Your task to perform on an android device: open sync settings in chrome Image 0: 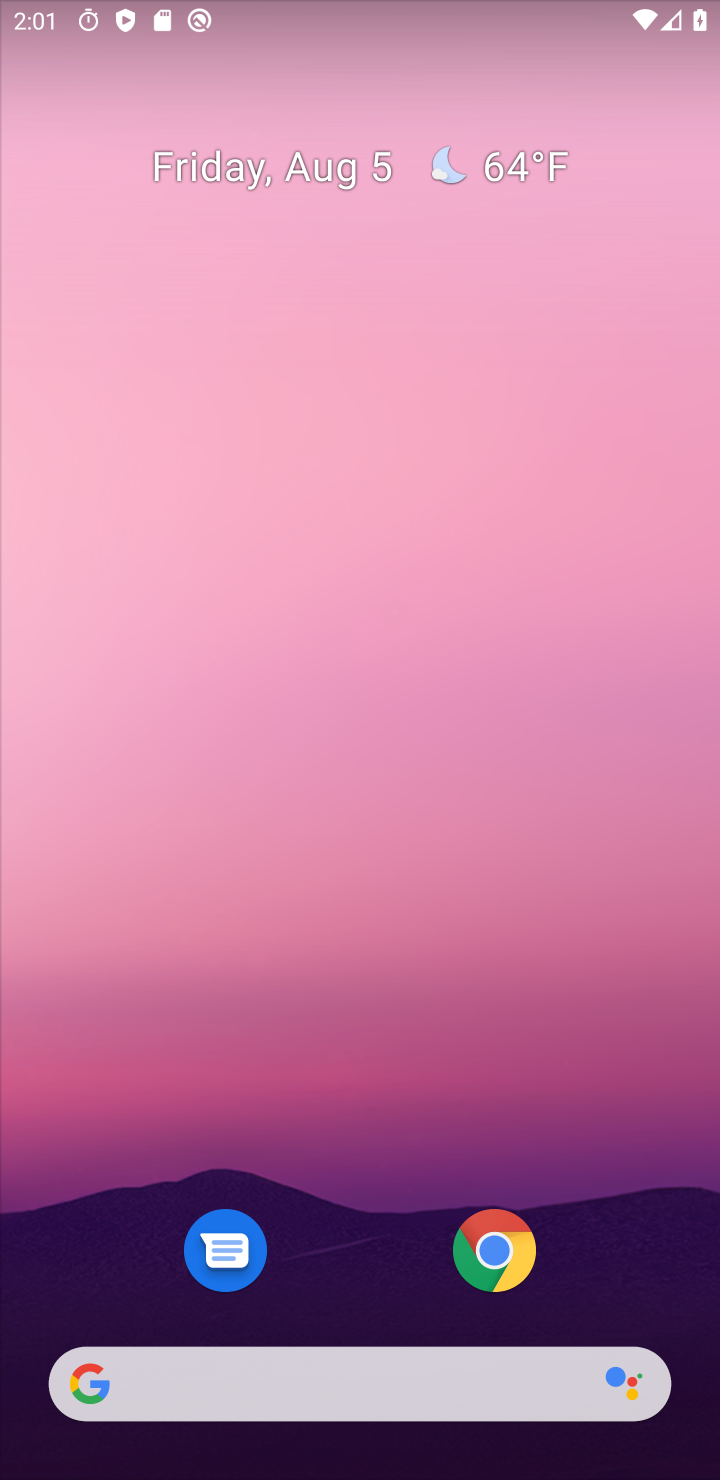
Step 0: drag from (327, 1016) to (412, 173)
Your task to perform on an android device: open sync settings in chrome Image 1: 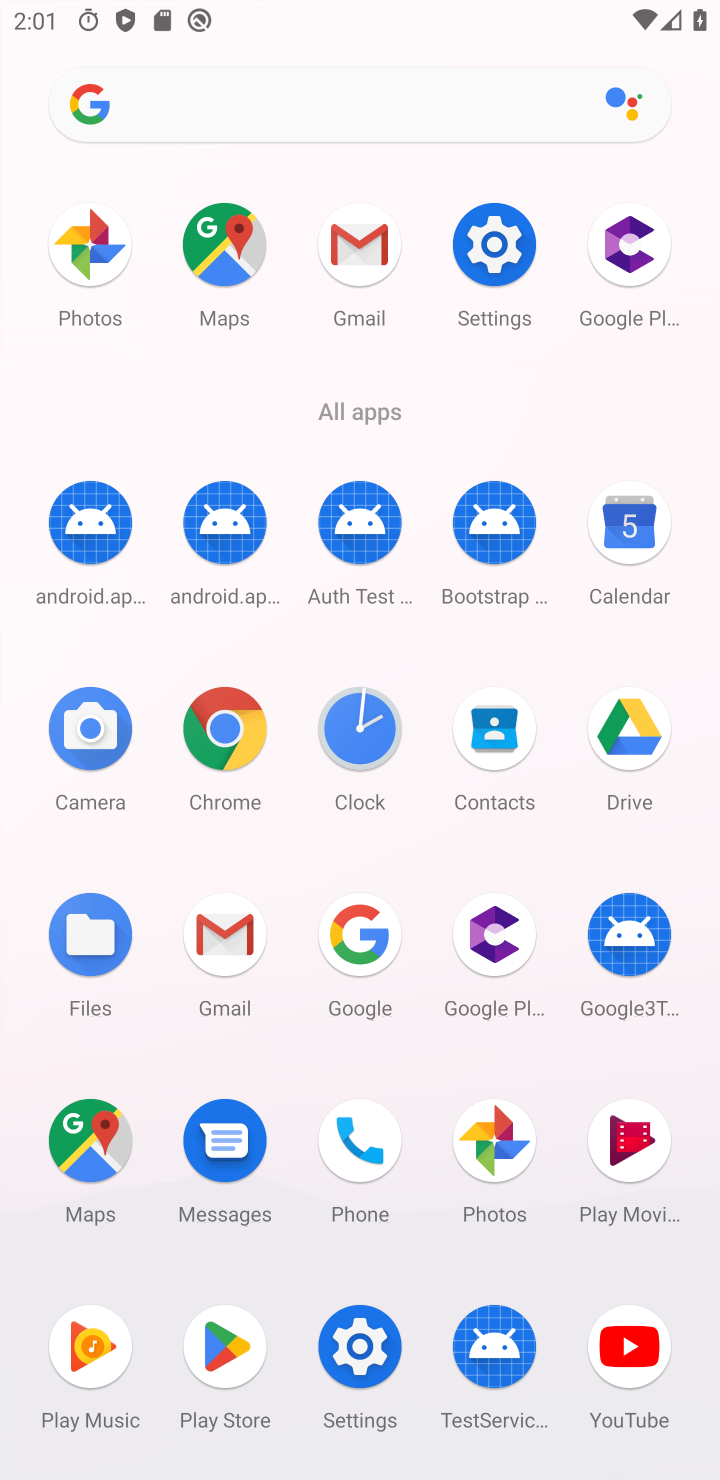
Step 1: click (228, 724)
Your task to perform on an android device: open sync settings in chrome Image 2: 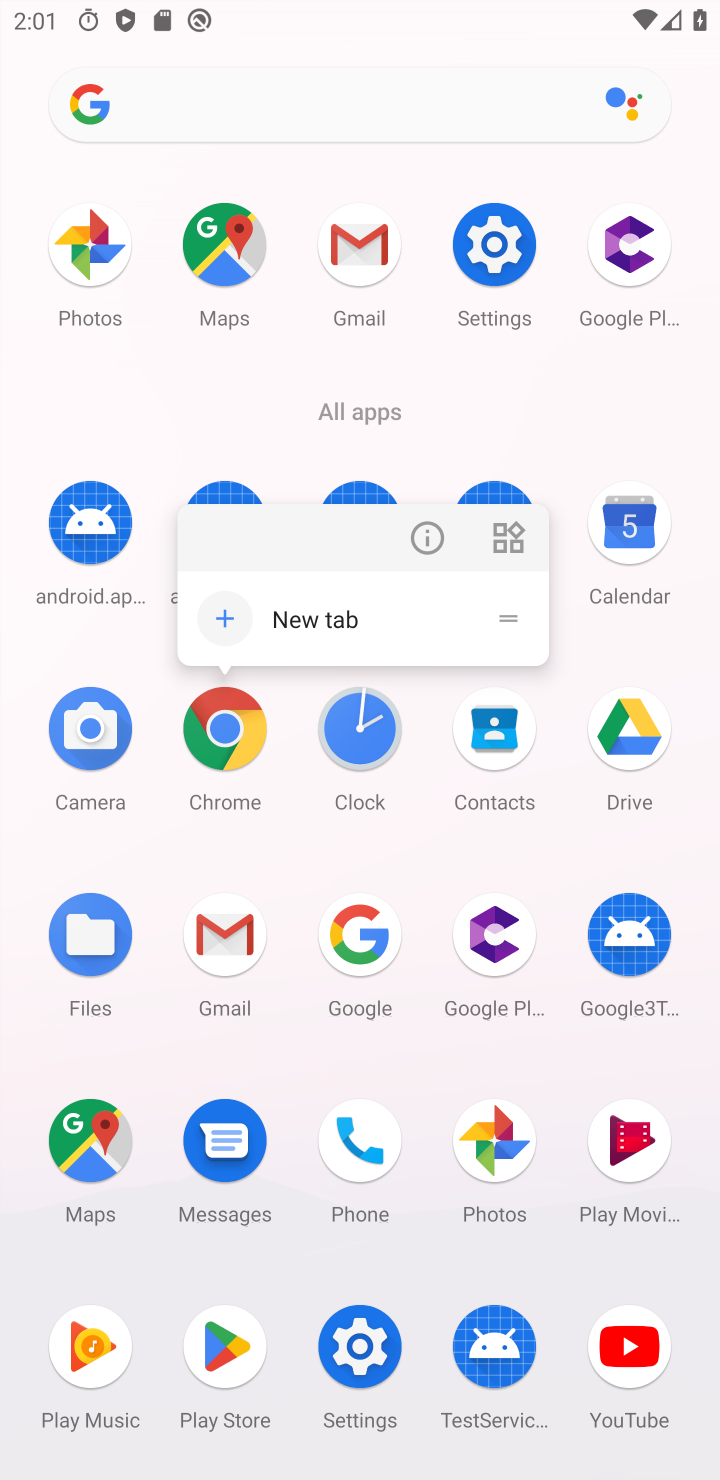
Step 2: click (419, 554)
Your task to perform on an android device: open sync settings in chrome Image 3: 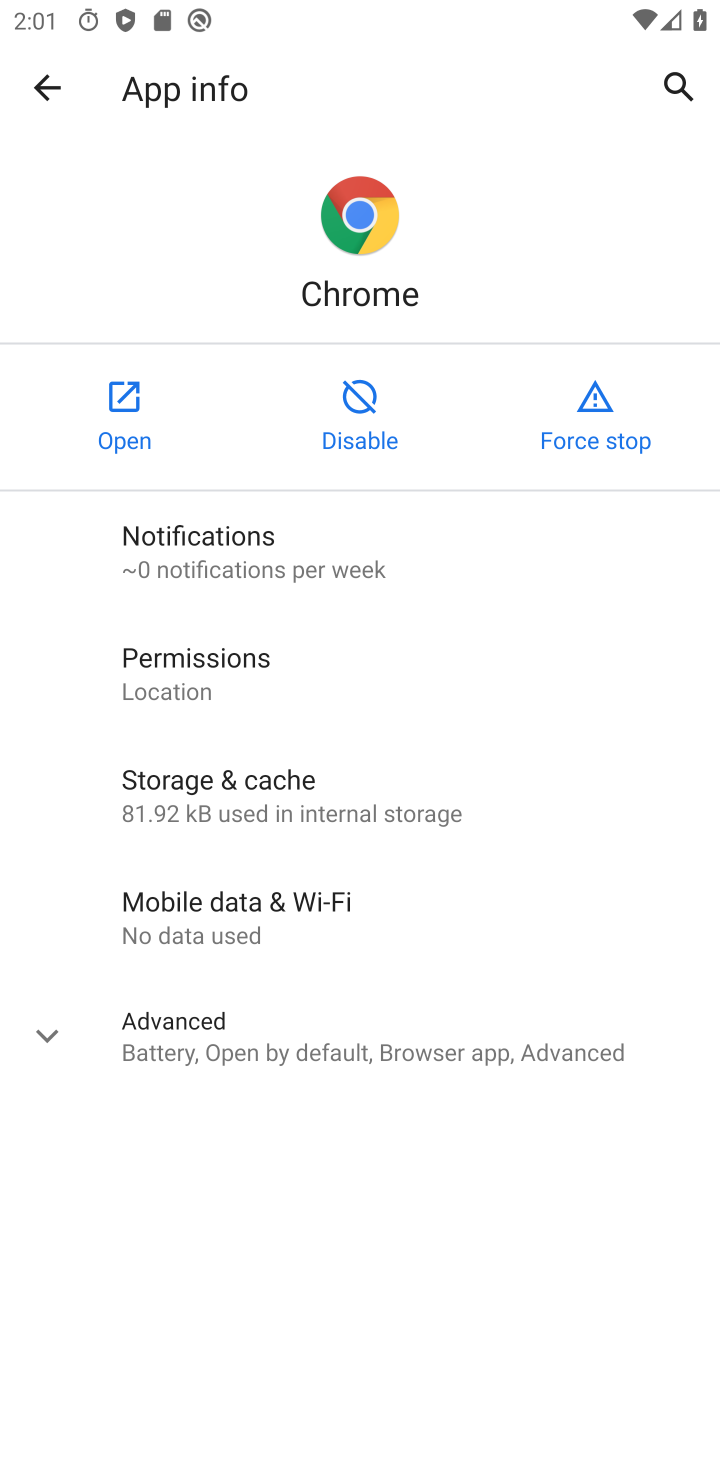
Step 3: click (134, 435)
Your task to perform on an android device: open sync settings in chrome Image 4: 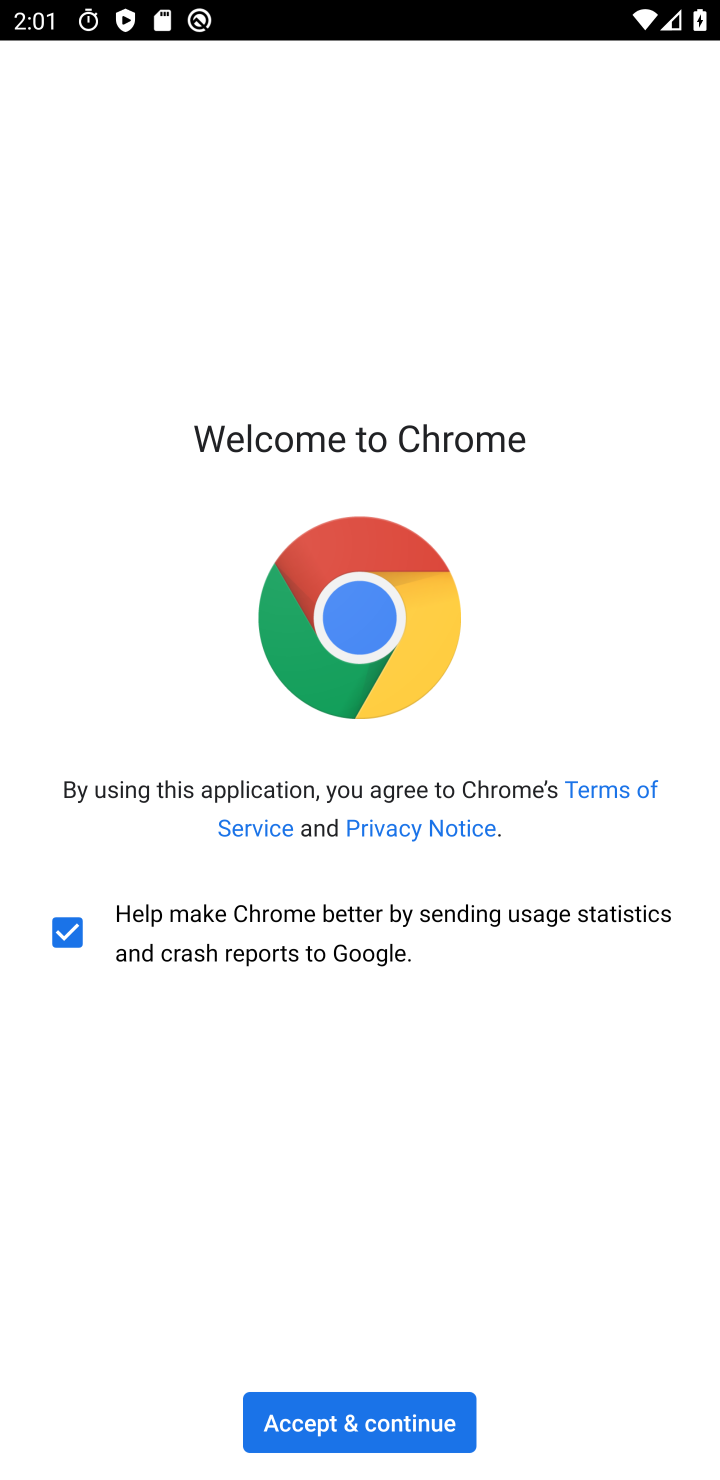
Step 4: click (320, 1403)
Your task to perform on an android device: open sync settings in chrome Image 5: 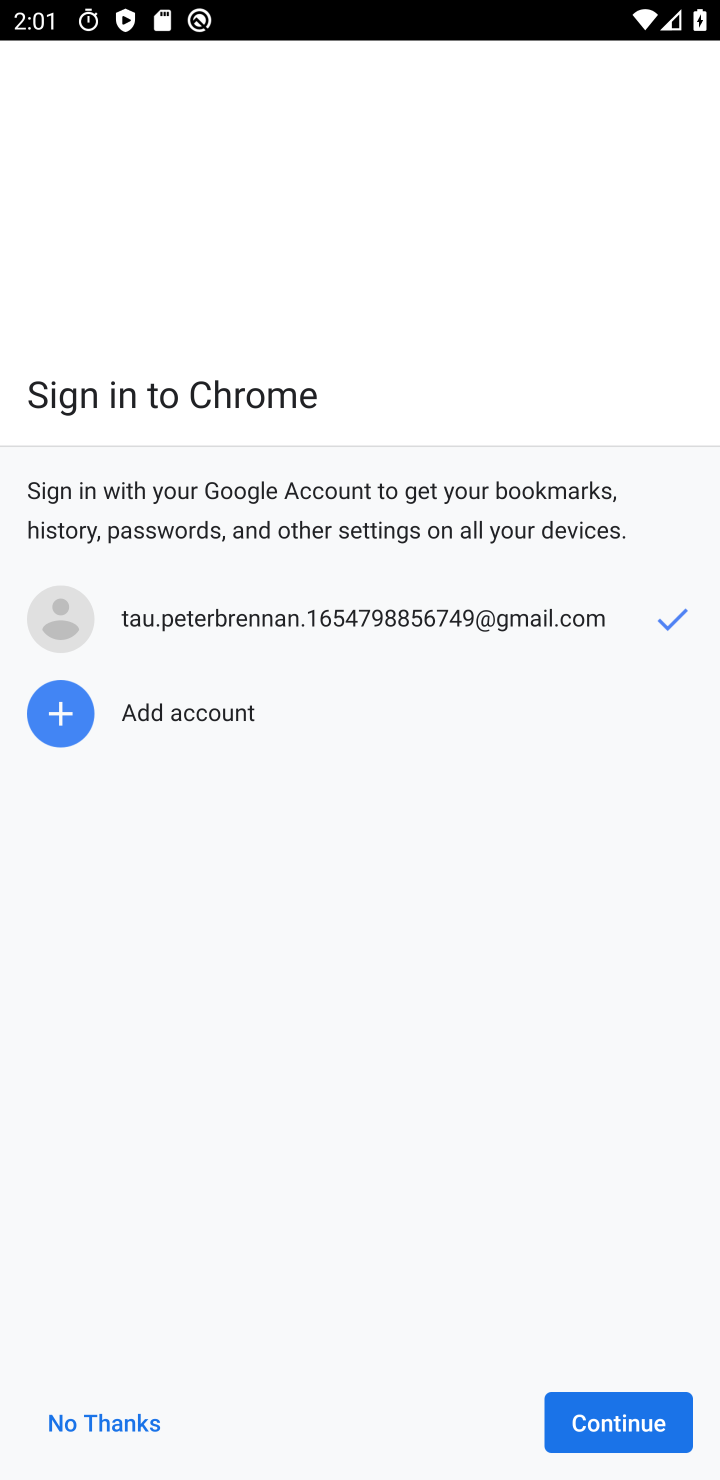
Step 5: click (587, 1413)
Your task to perform on an android device: open sync settings in chrome Image 6: 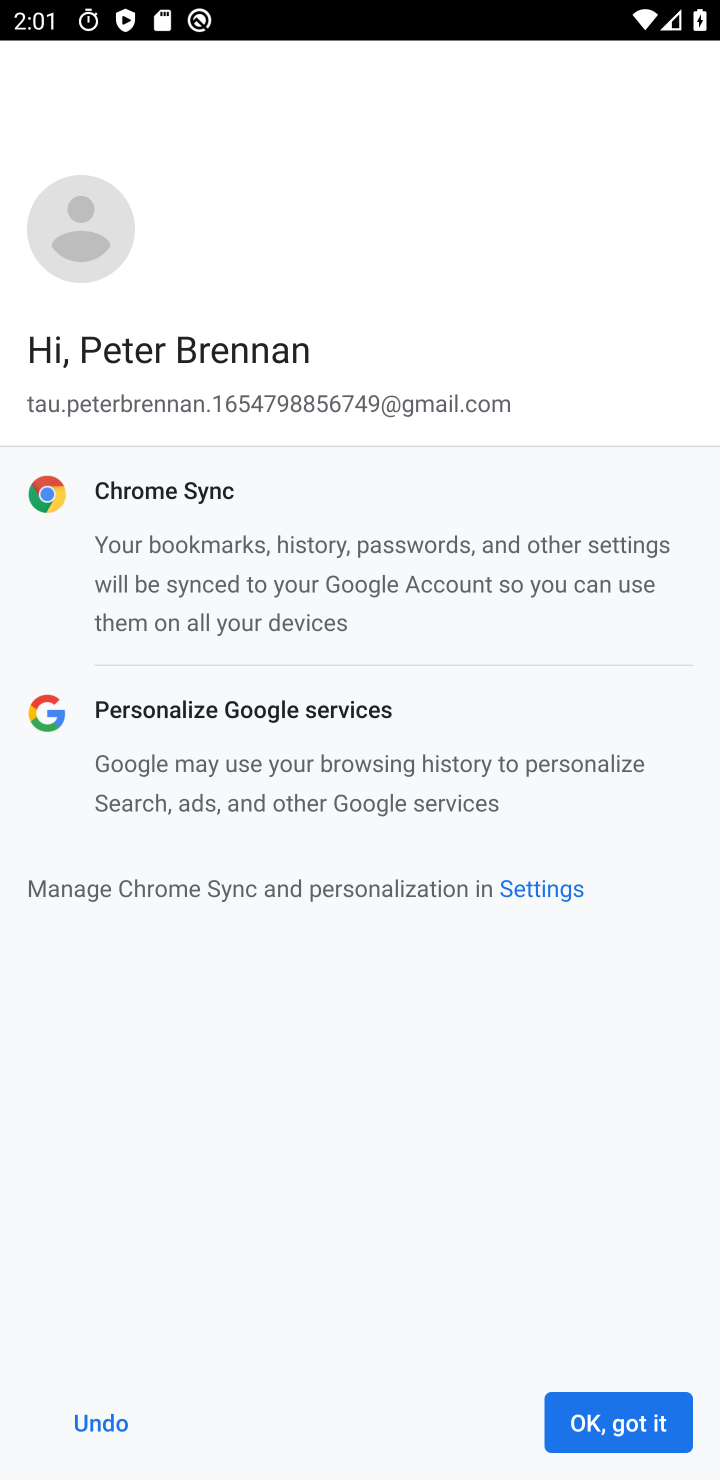
Step 6: click (581, 1411)
Your task to perform on an android device: open sync settings in chrome Image 7: 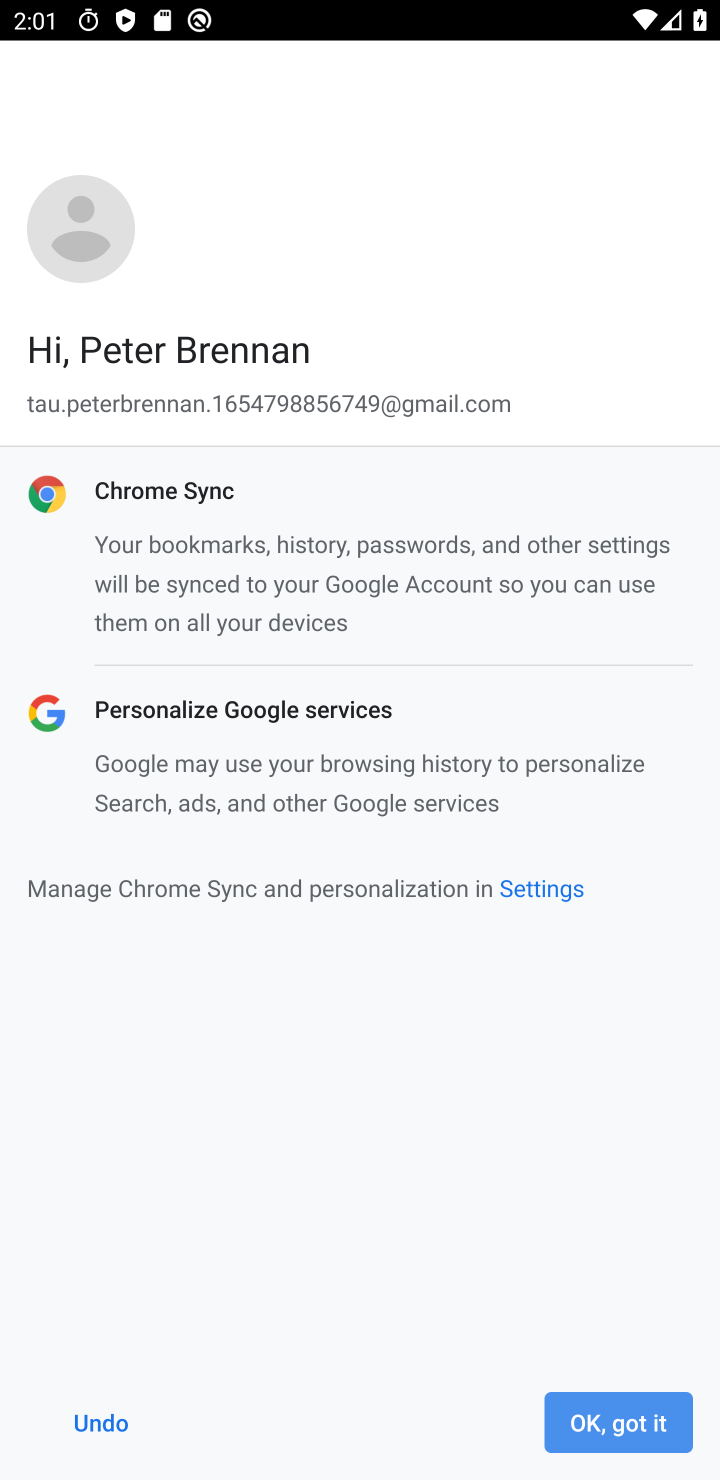
Step 7: click (578, 1407)
Your task to perform on an android device: open sync settings in chrome Image 8: 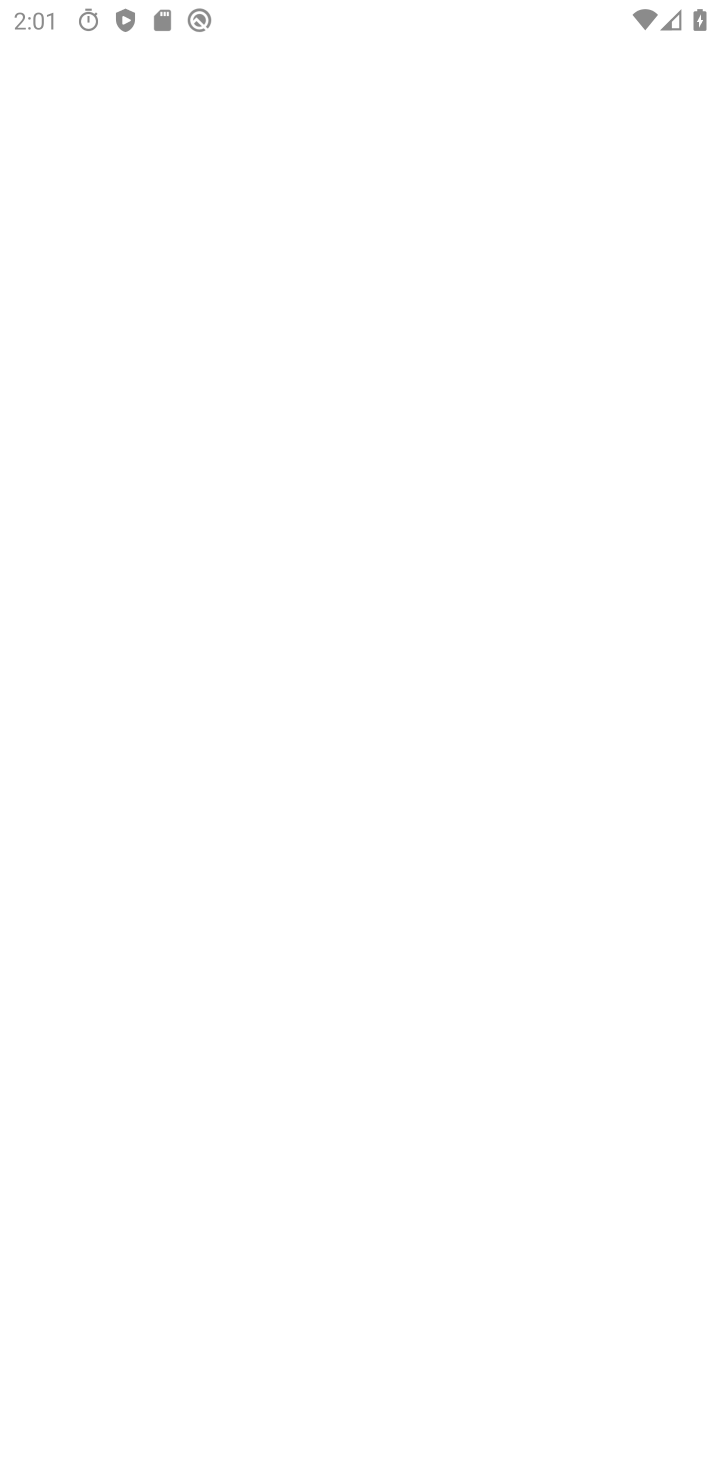
Step 8: drag from (279, 1086) to (245, 278)
Your task to perform on an android device: open sync settings in chrome Image 9: 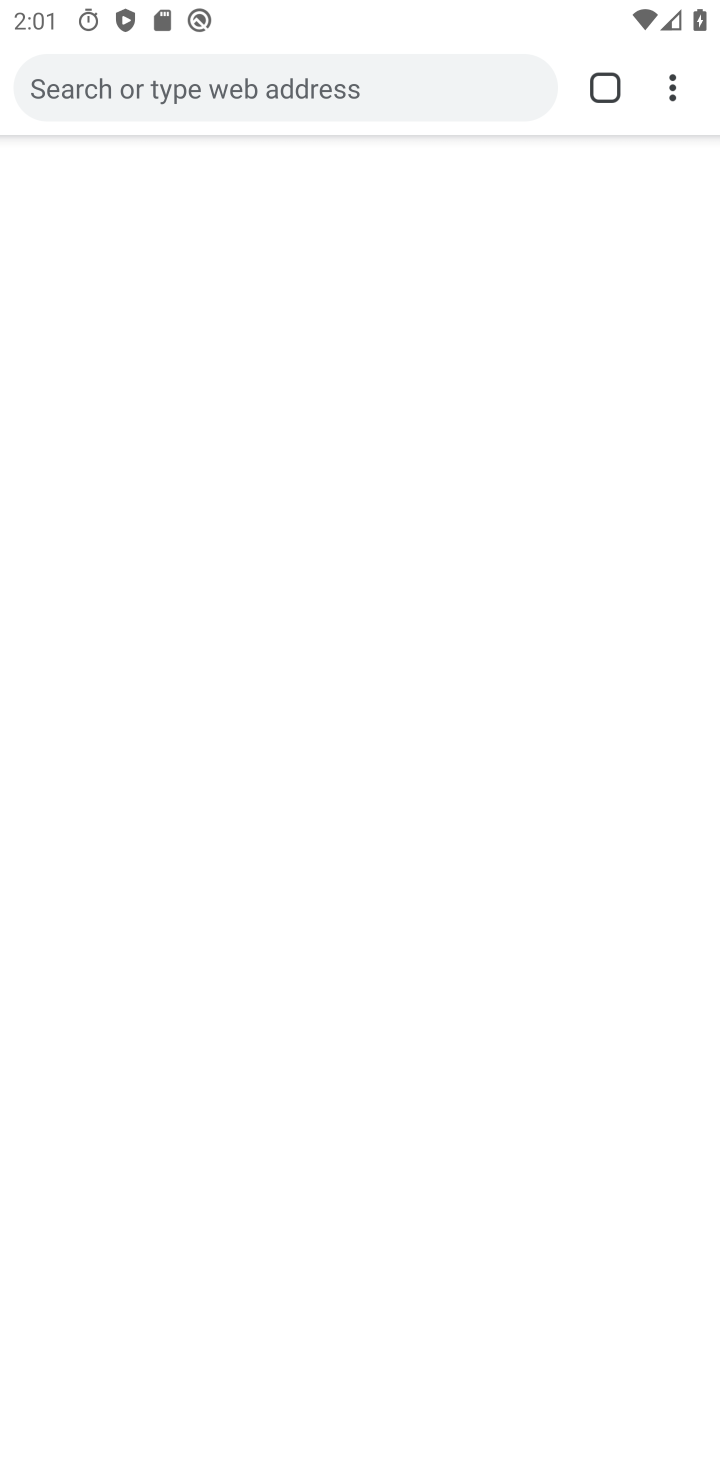
Step 9: drag from (277, 667) to (277, 337)
Your task to perform on an android device: open sync settings in chrome Image 10: 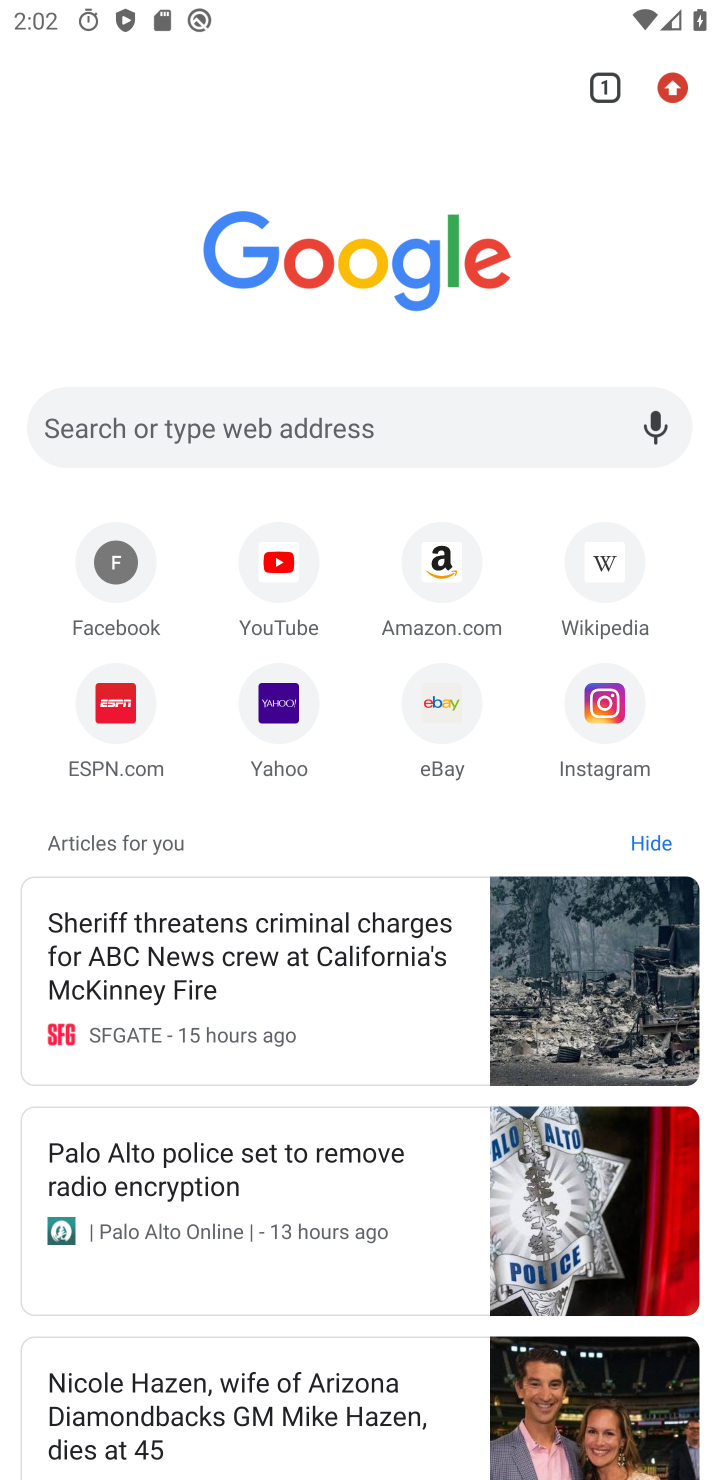
Step 10: drag from (660, 81) to (407, 834)
Your task to perform on an android device: open sync settings in chrome Image 11: 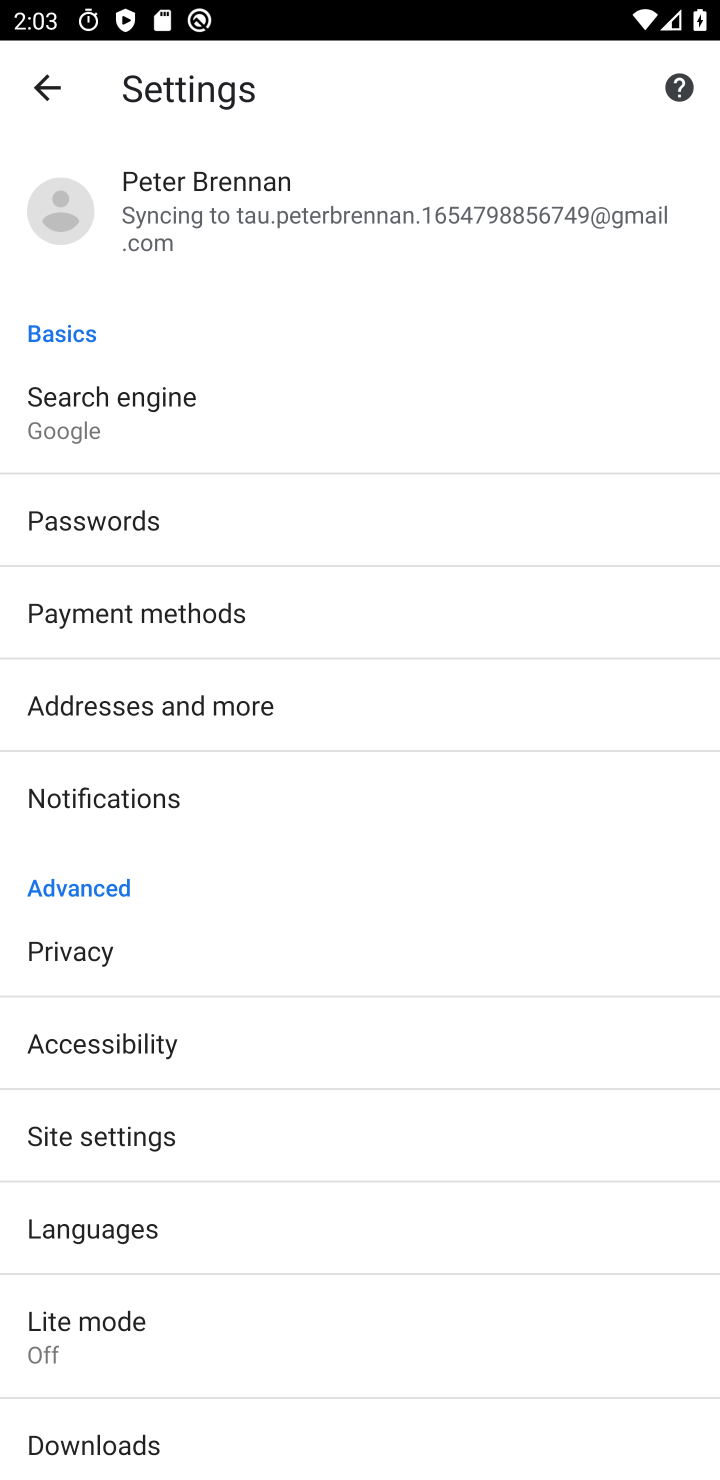
Step 11: drag from (290, 1332) to (424, 623)
Your task to perform on an android device: open sync settings in chrome Image 12: 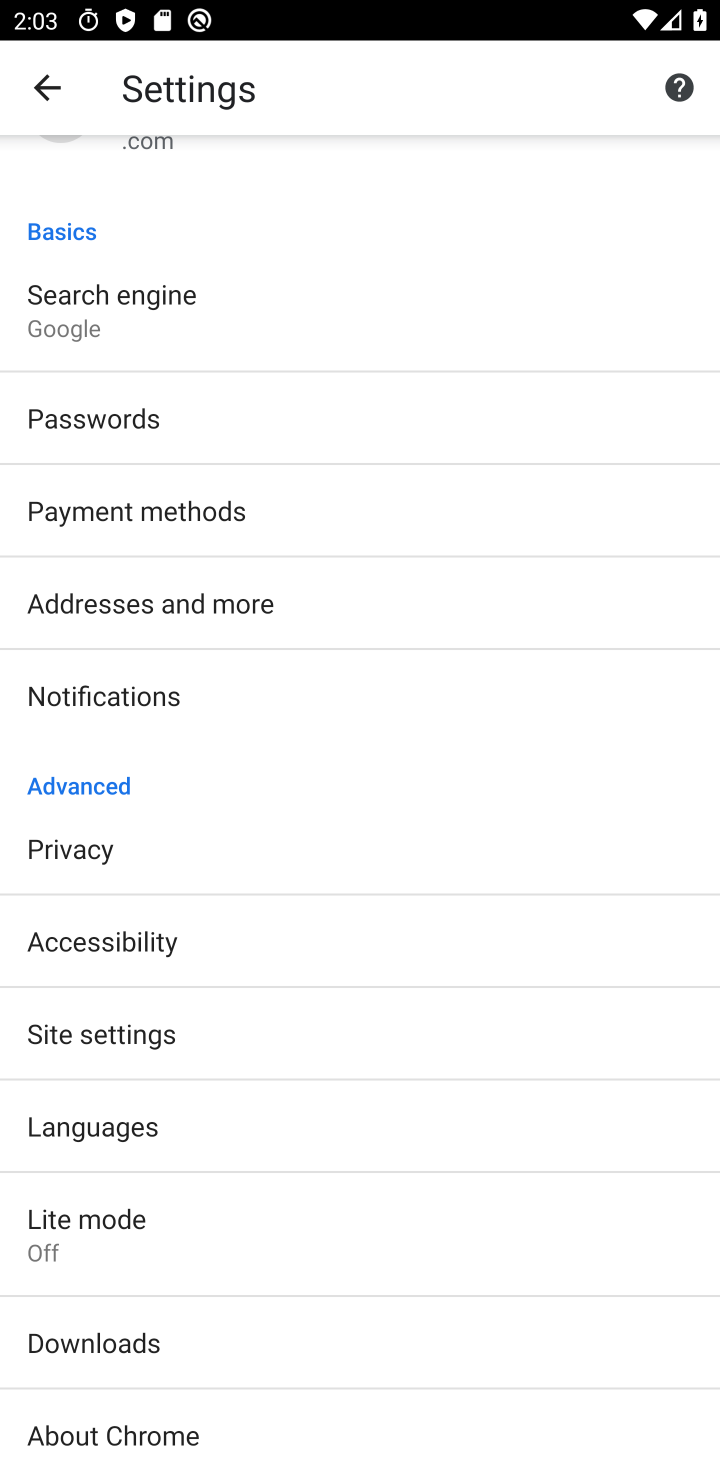
Step 12: click (180, 844)
Your task to perform on an android device: open sync settings in chrome Image 13: 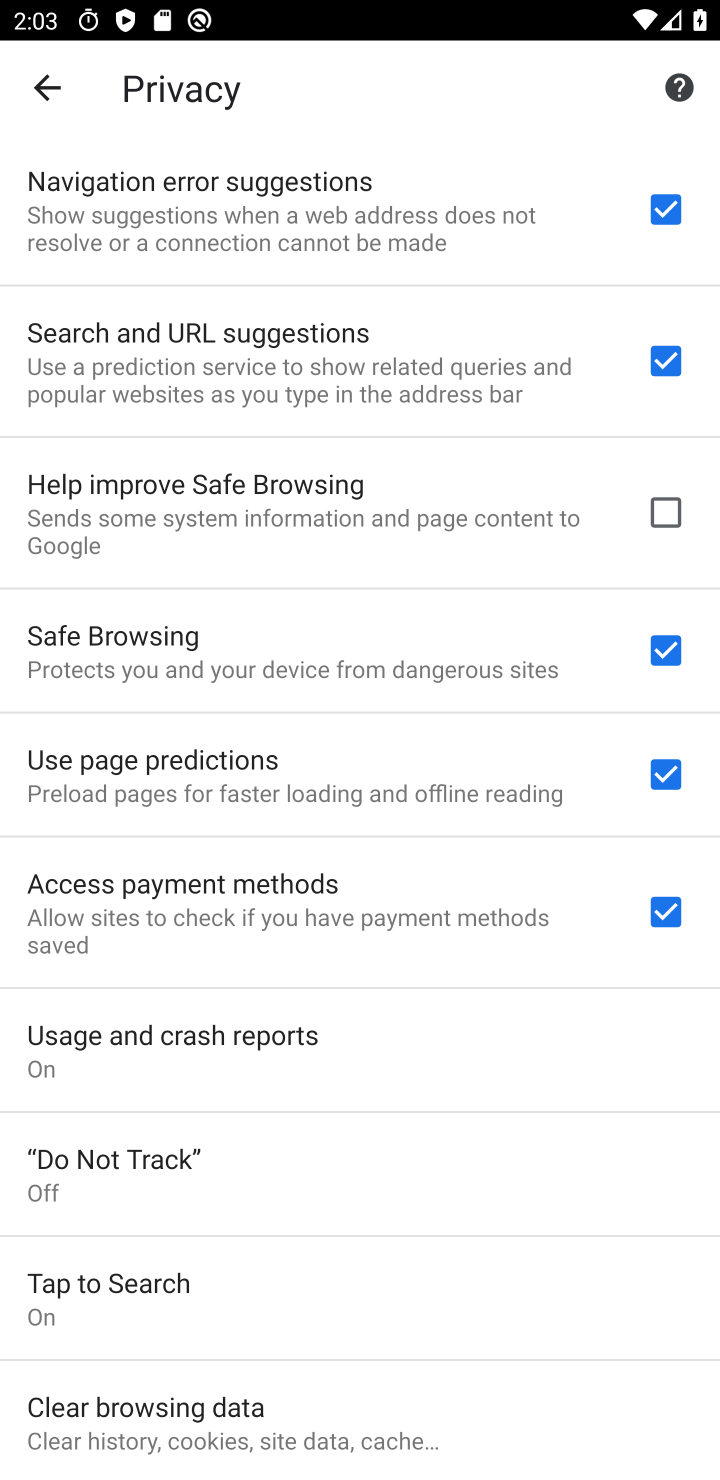
Step 13: drag from (379, 551) to (284, 1062)
Your task to perform on an android device: open sync settings in chrome Image 14: 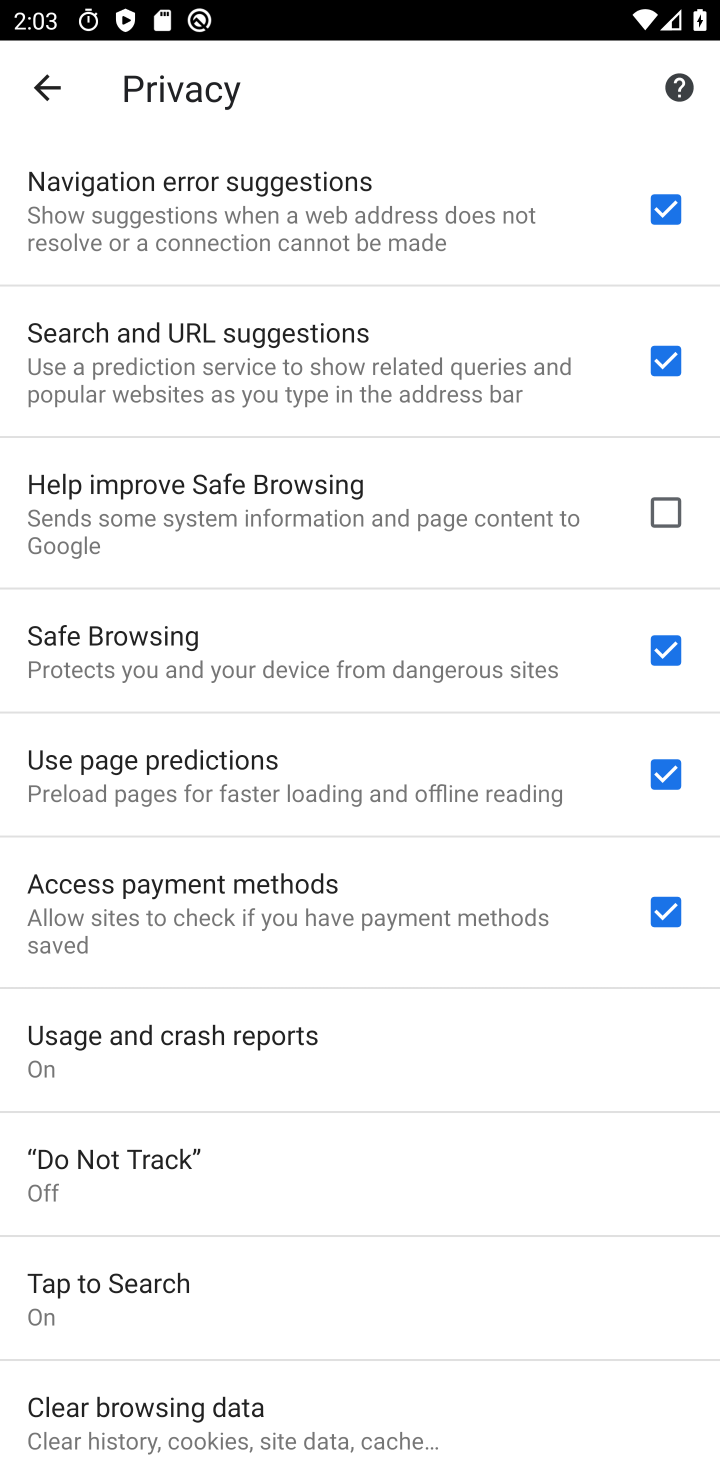
Step 14: drag from (480, 292) to (498, 228)
Your task to perform on an android device: open sync settings in chrome Image 15: 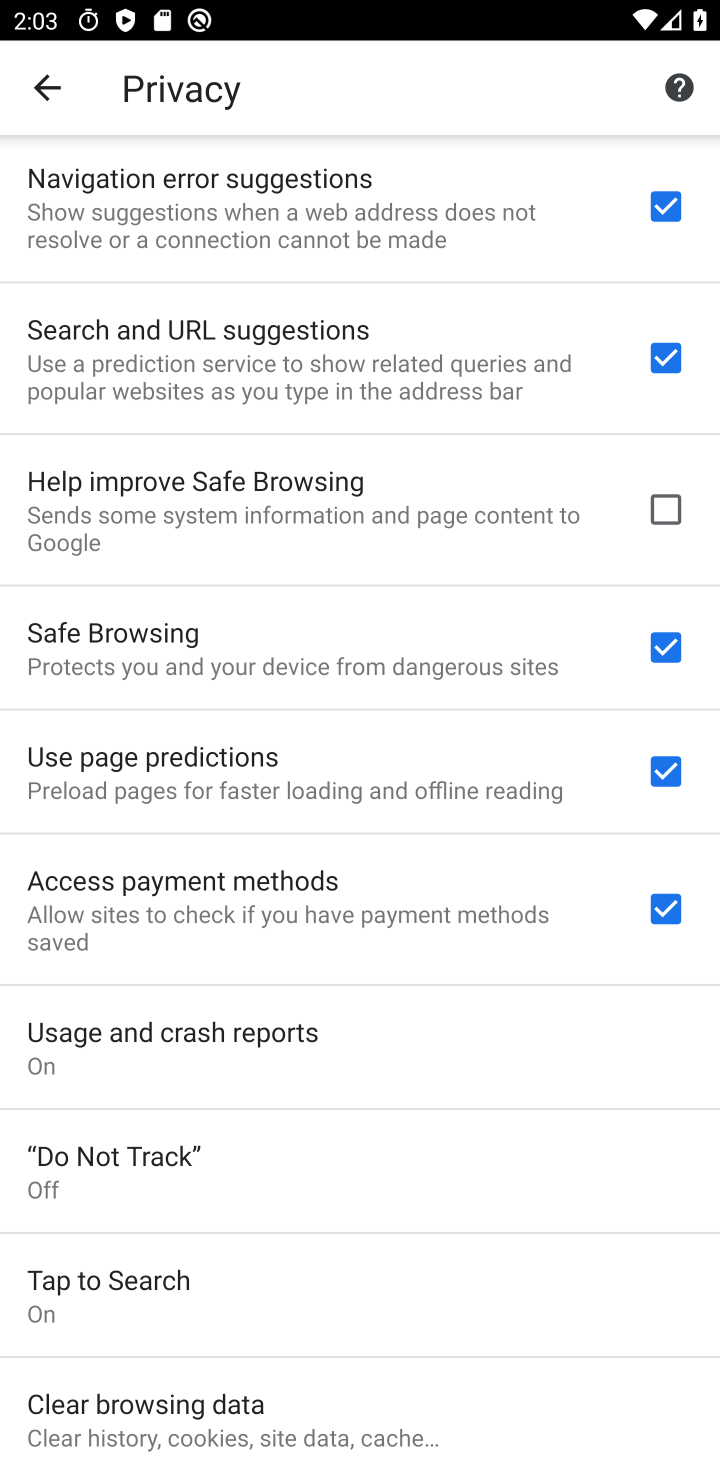
Step 15: click (39, 92)
Your task to perform on an android device: open sync settings in chrome Image 16: 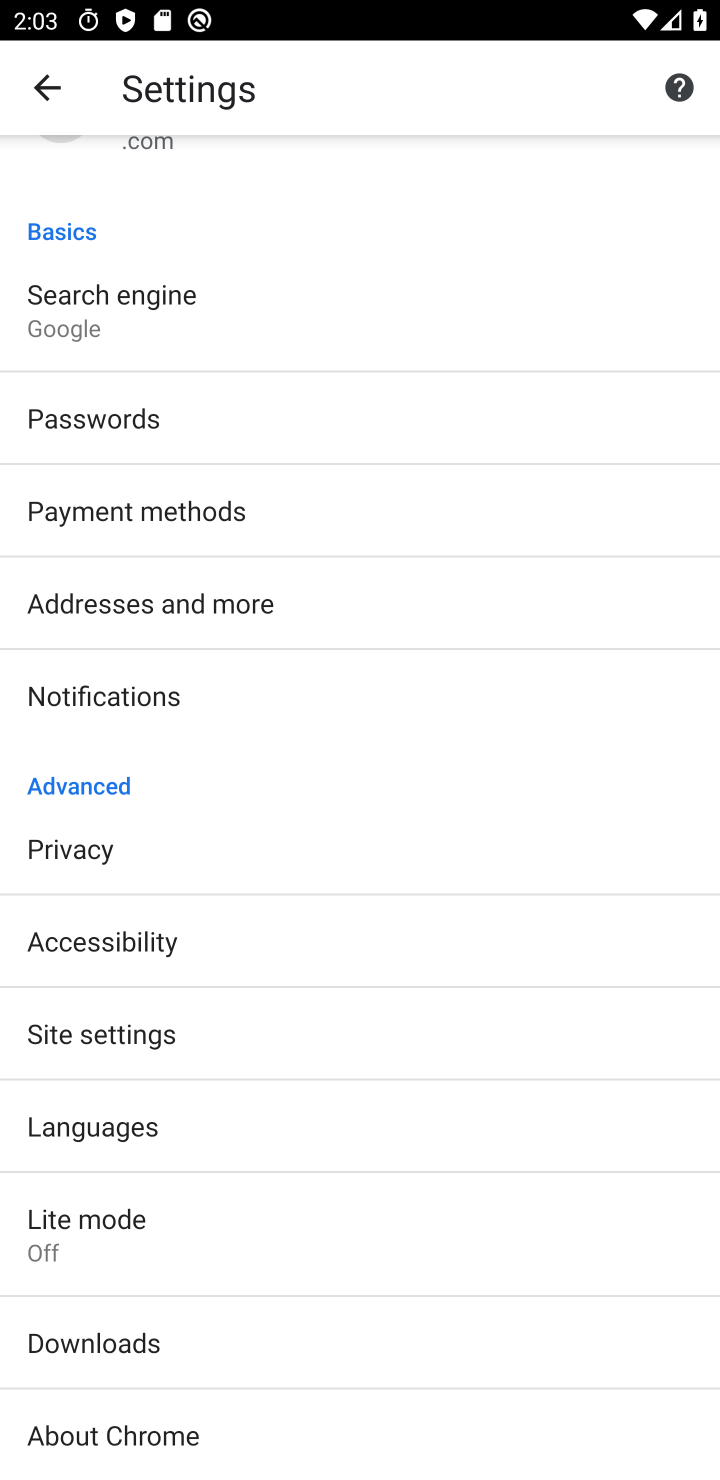
Step 16: drag from (206, 1132) to (248, 542)
Your task to perform on an android device: open sync settings in chrome Image 17: 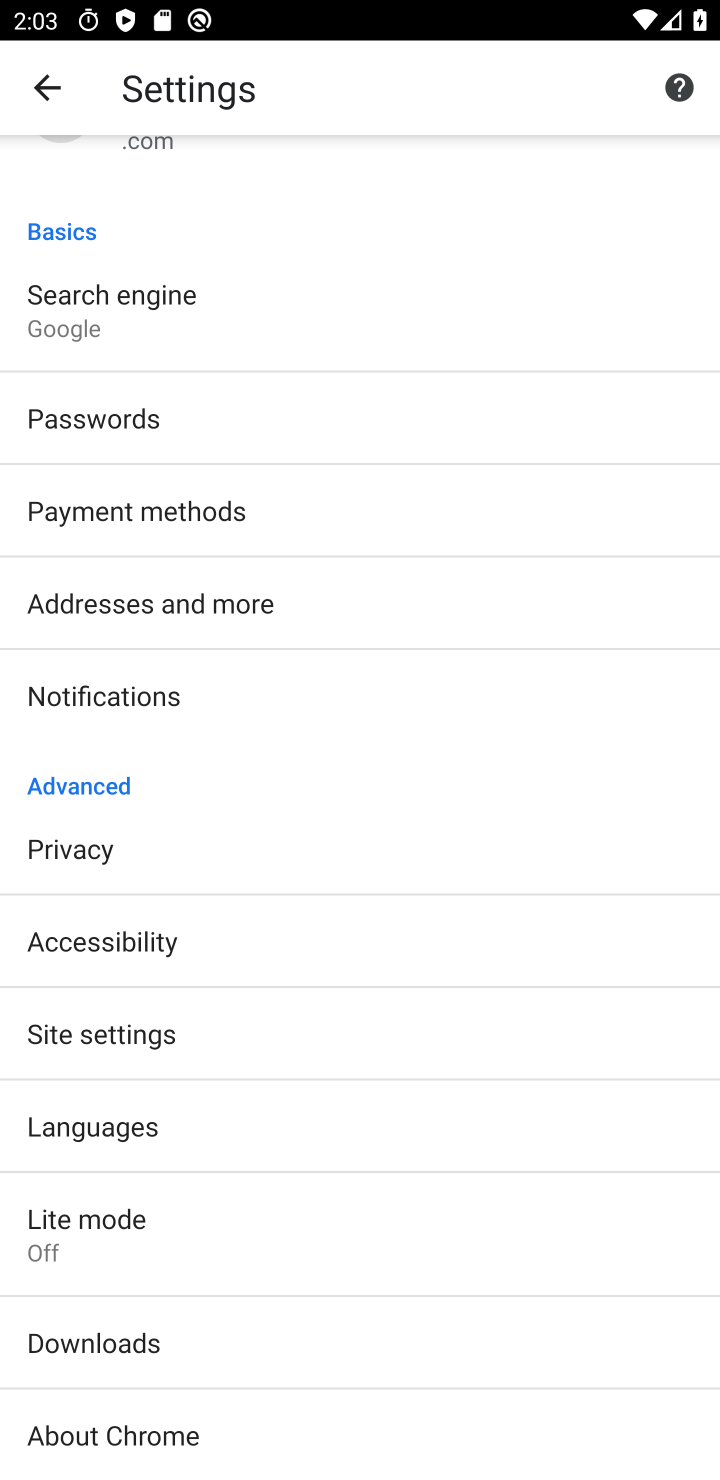
Step 17: click (170, 1028)
Your task to perform on an android device: open sync settings in chrome Image 18: 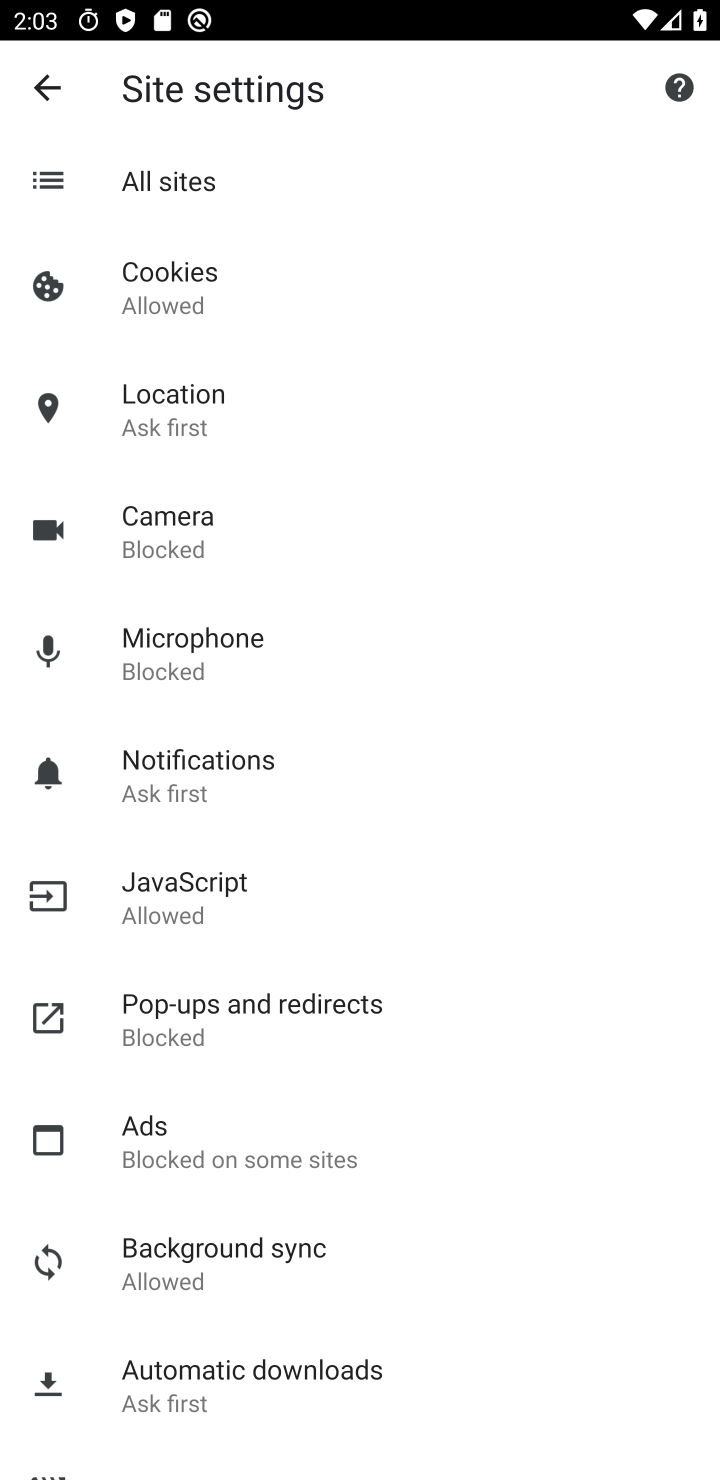
Step 18: click (171, 1053)
Your task to perform on an android device: open sync settings in chrome Image 19: 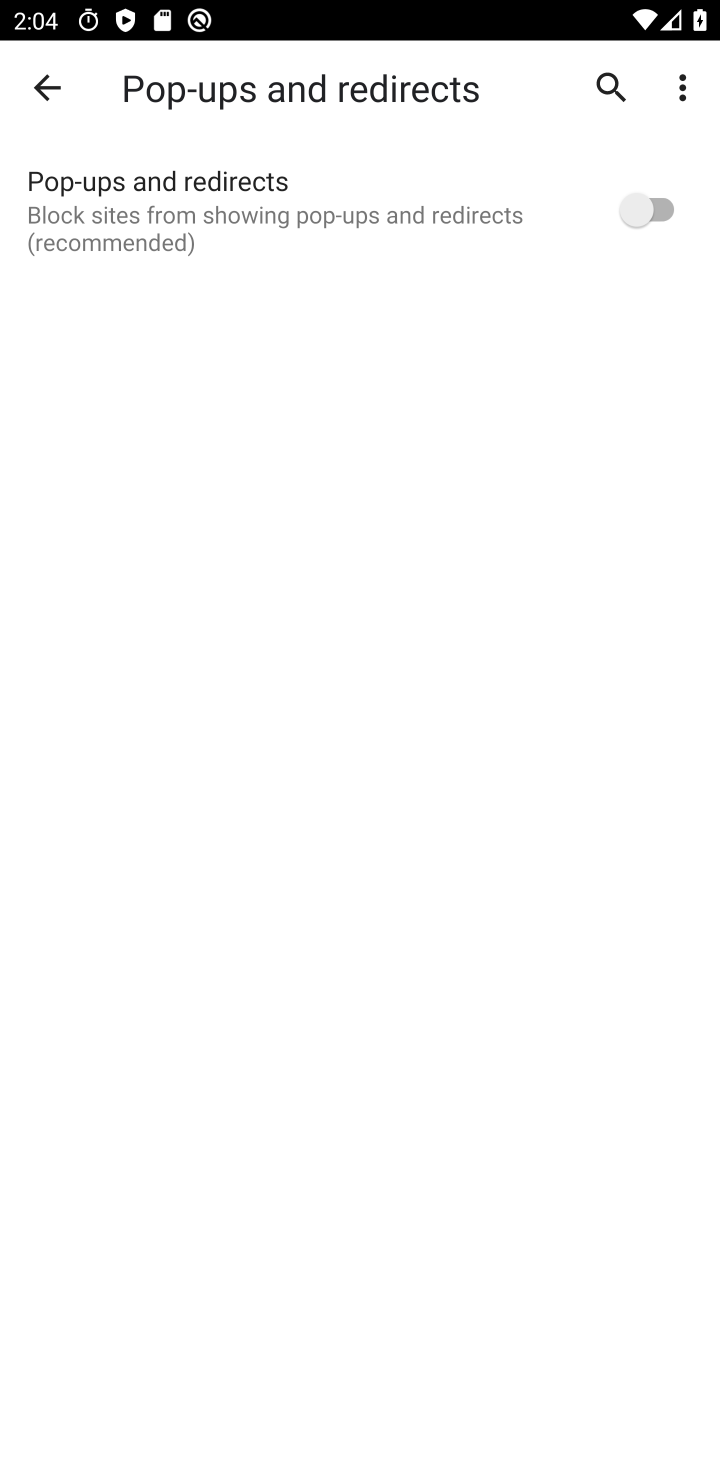
Step 19: drag from (422, 899) to (439, 715)
Your task to perform on an android device: open sync settings in chrome Image 20: 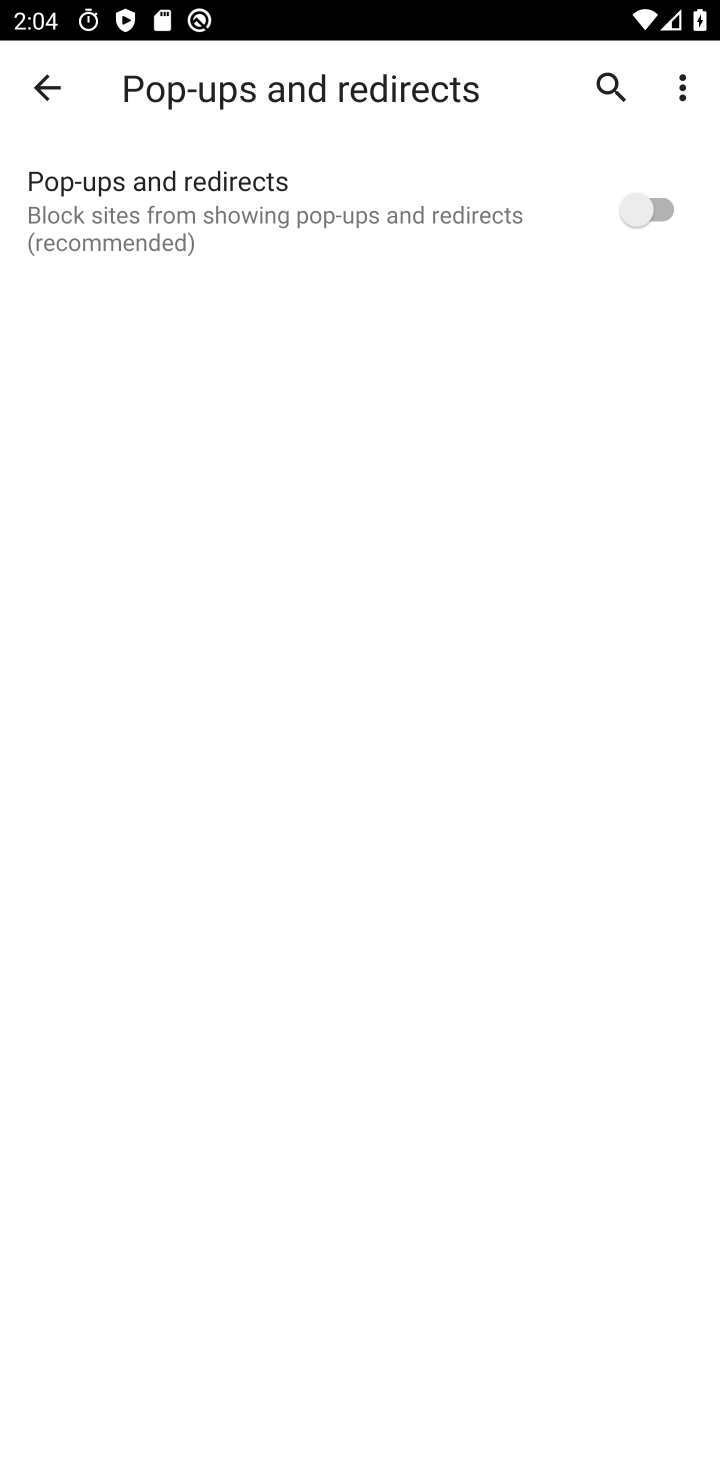
Step 20: drag from (272, 805) to (342, 442)
Your task to perform on an android device: open sync settings in chrome Image 21: 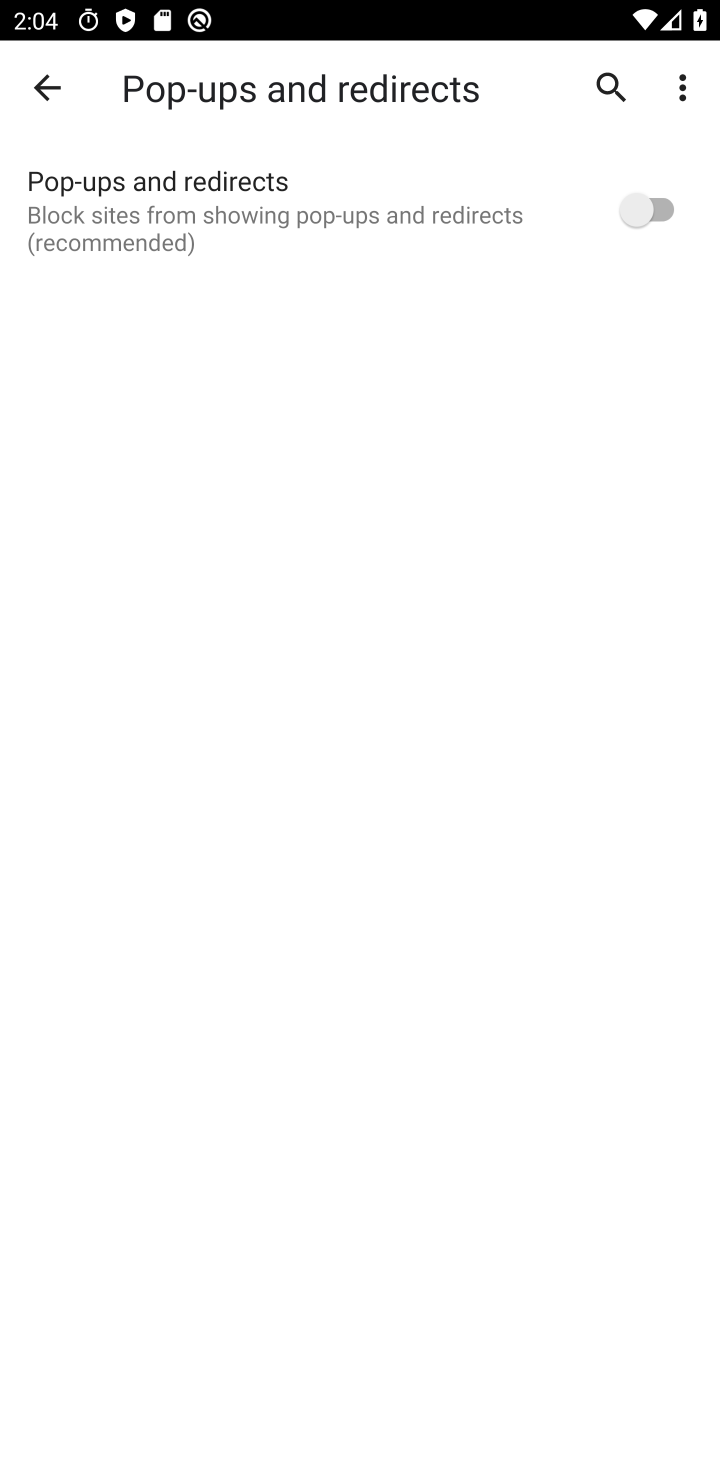
Step 21: click (42, 90)
Your task to perform on an android device: open sync settings in chrome Image 22: 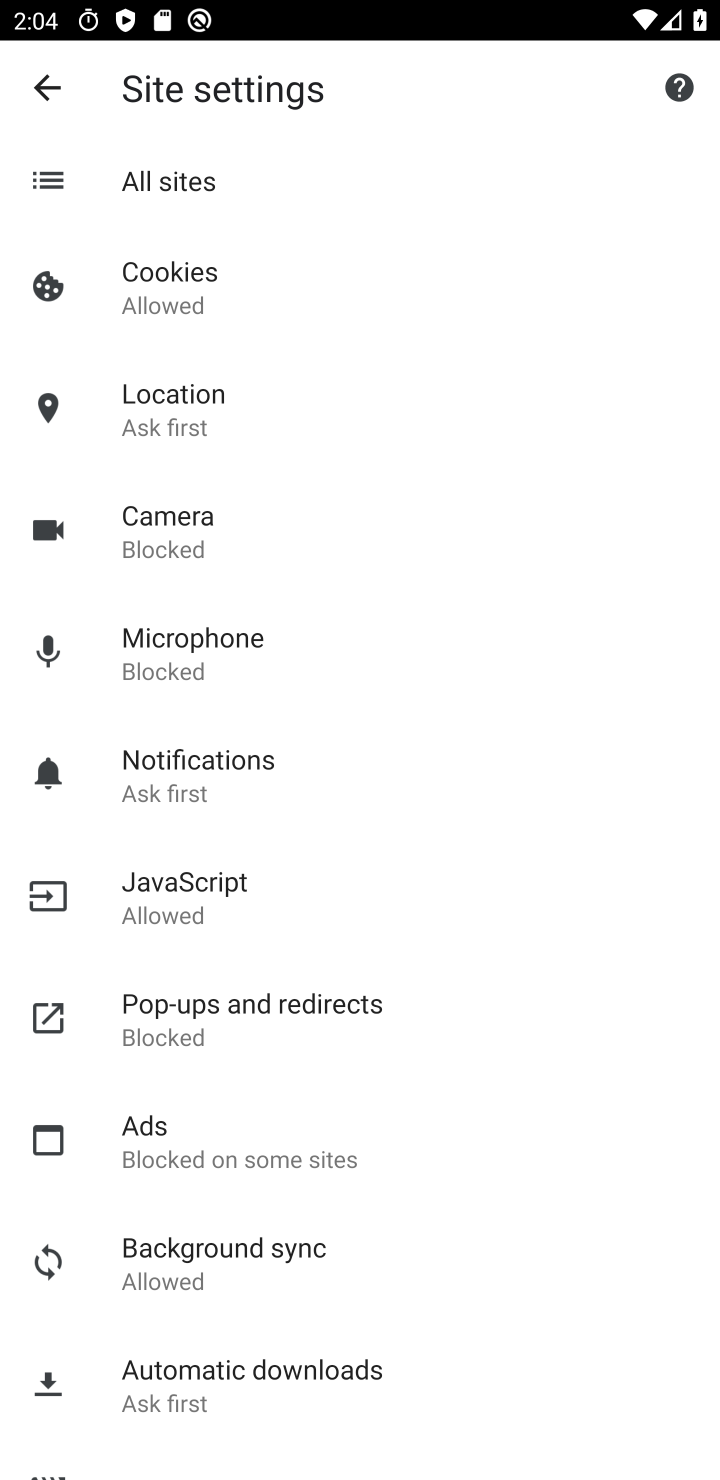
Step 22: click (258, 1272)
Your task to perform on an android device: open sync settings in chrome Image 23: 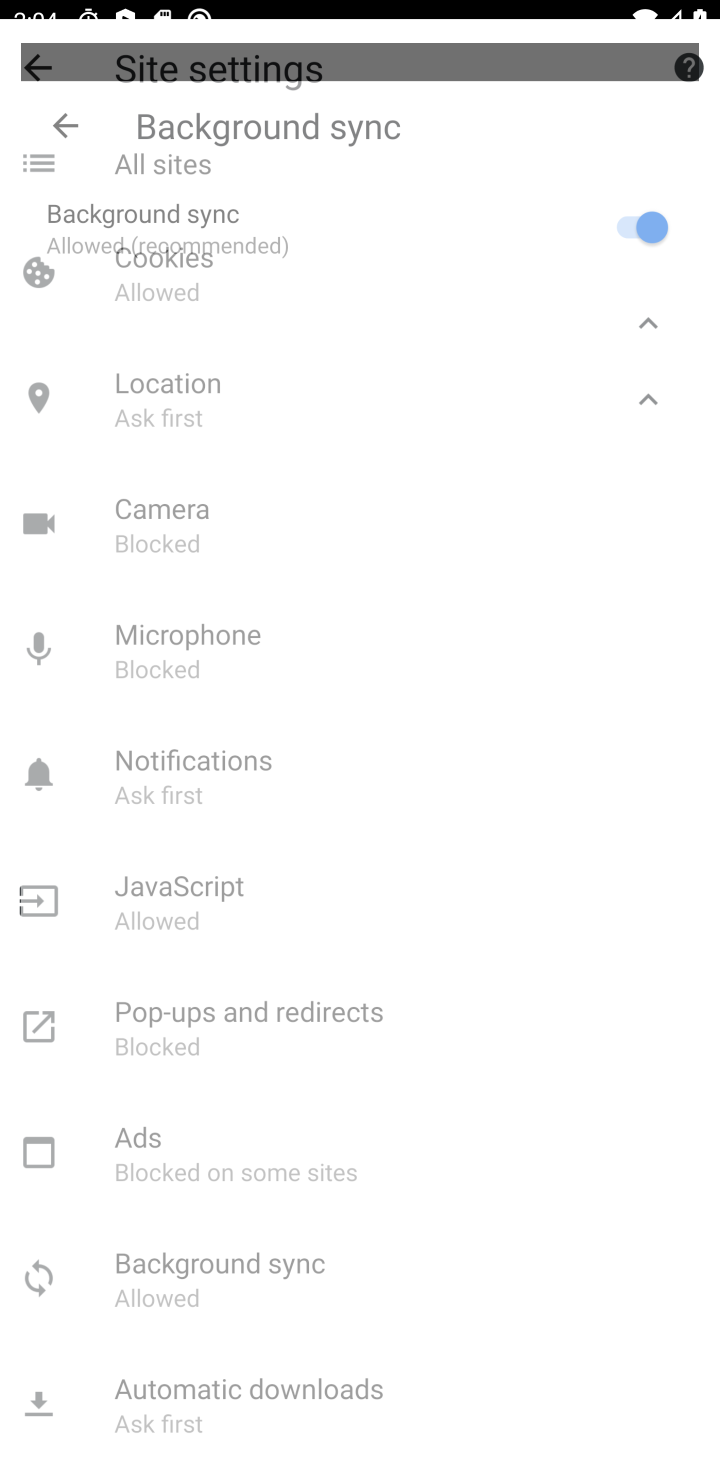
Step 23: task complete